Your task to perform on an android device: star an email in the gmail app Image 0: 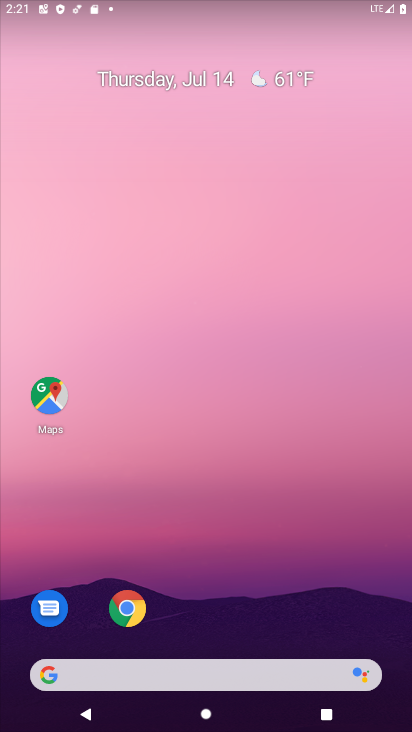
Step 0: drag from (304, 636) to (304, 273)
Your task to perform on an android device: star an email in the gmail app Image 1: 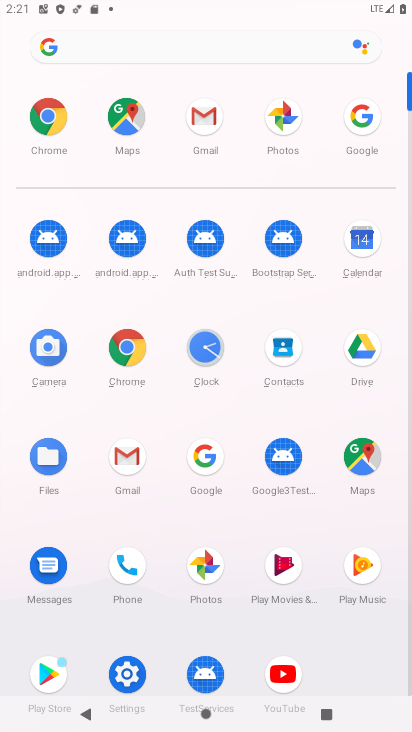
Step 1: click (127, 455)
Your task to perform on an android device: star an email in the gmail app Image 2: 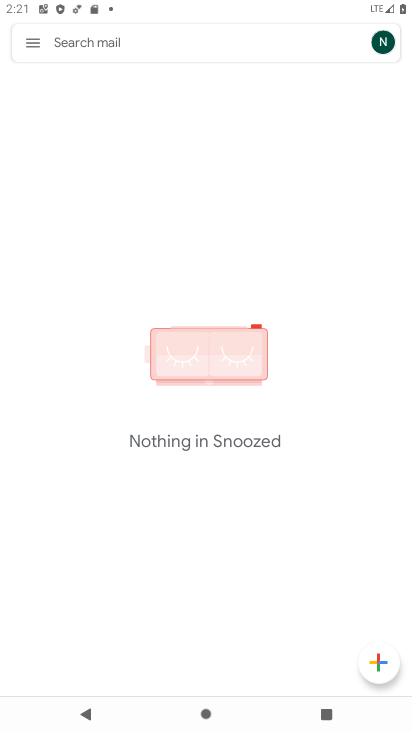
Step 2: click (30, 37)
Your task to perform on an android device: star an email in the gmail app Image 3: 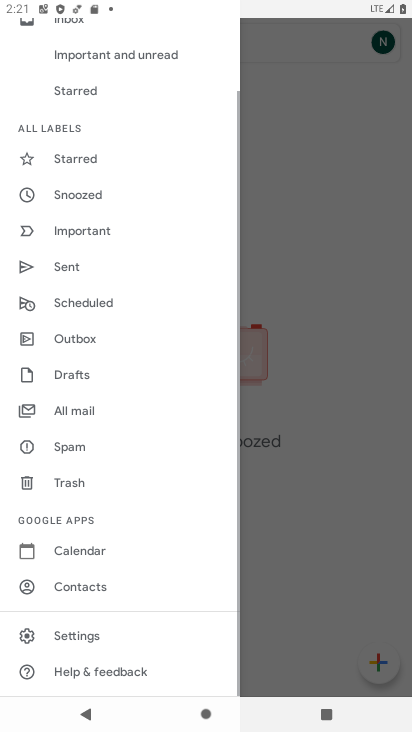
Step 3: drag from (94, 103) to (92, 530)
Your task to perform on an android device: star an email in the gmail app Image 4: 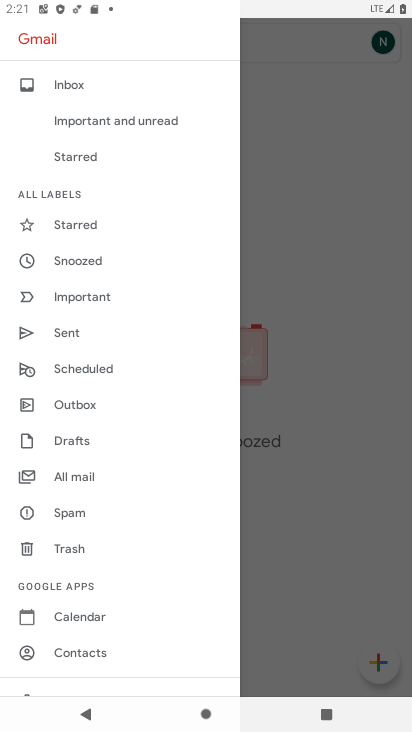
Step 4: click (65, 80)
Your task to perform on an android device: star an email in the gmail app Image 5: 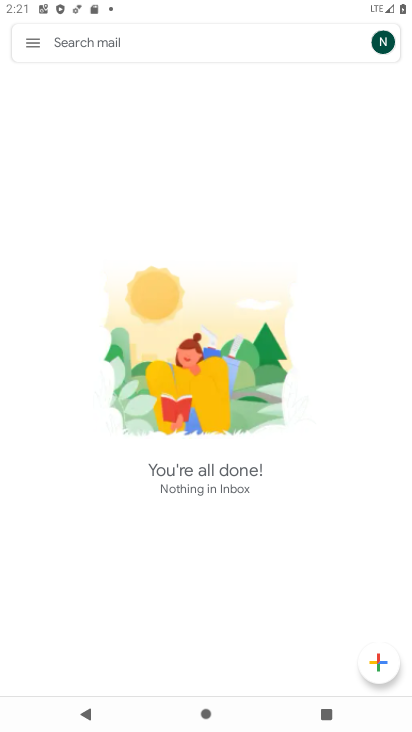
Step 5: task complete